Your task to perform on an android device: Go to eBay Image 0: 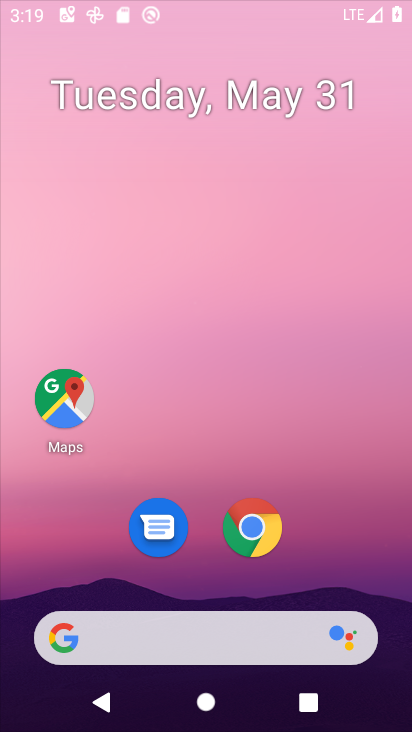
Step 0: drag from (365, 491) to (305, 15)
Your task to perform on an android device: Go to eBay Image 1: 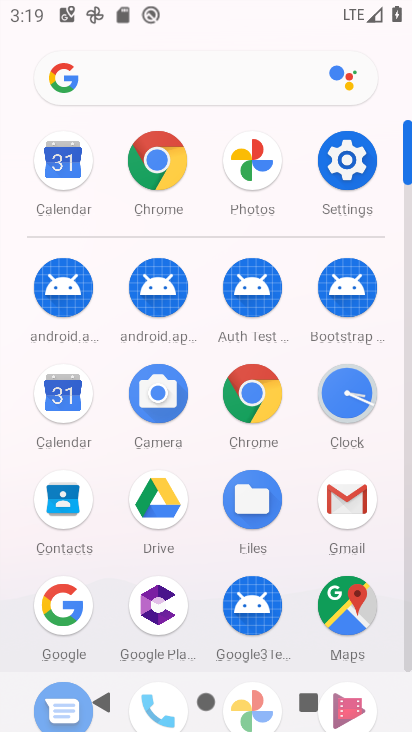
Step 1: click (339, 152)
Your task to perform on an android device: Go to eBay Image 2: 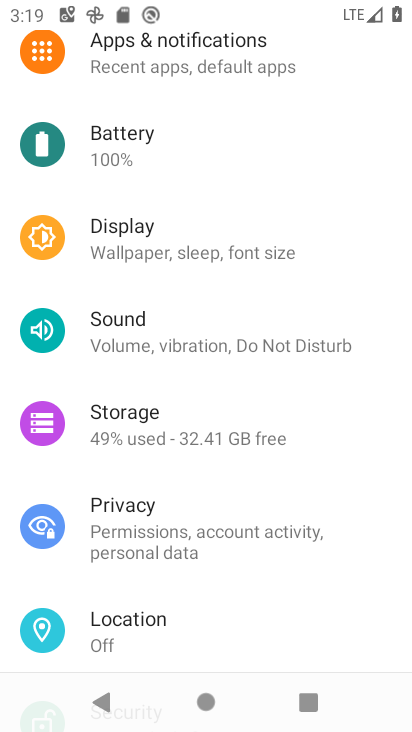
Step 2: press home button
Your task to perform on an android device: Go to eBay Image 3: 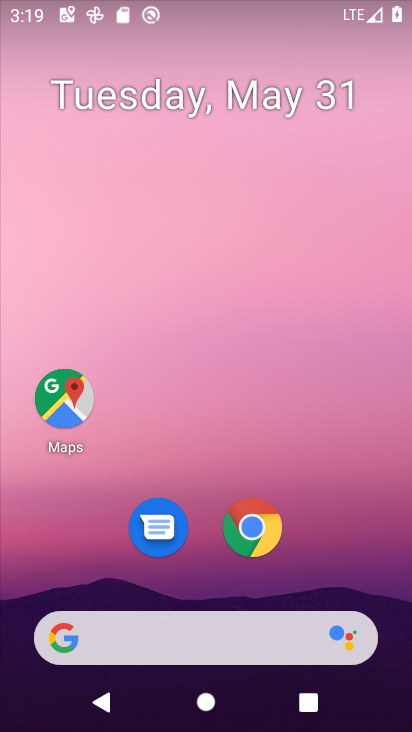
Step 3: drag from (370, 498) to (396, 88)
Your task to perform on an android device: Go to eBay Image 4: 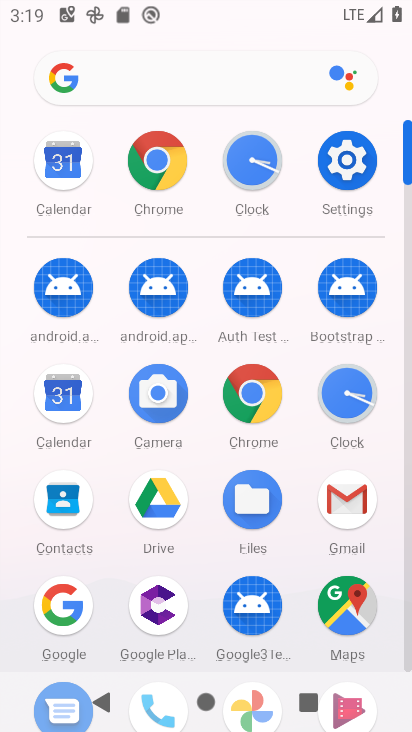
Step 4: click (146, 180)
Your task to perform on an android device: Go to eBay Image 5: 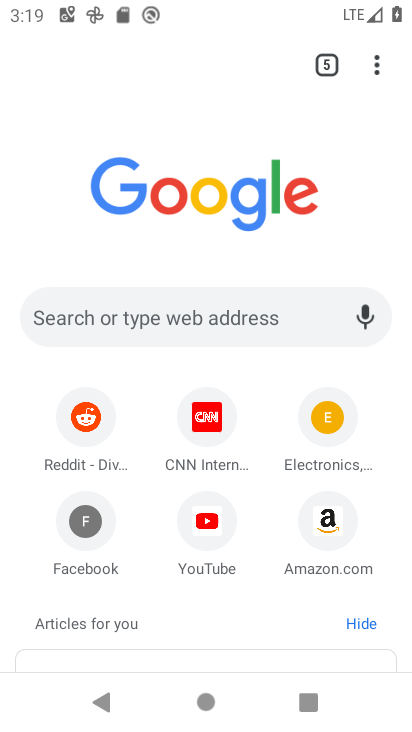
Step 5: click (261, 351)
Your task to perform on an android device: Go to eBay Image 6: 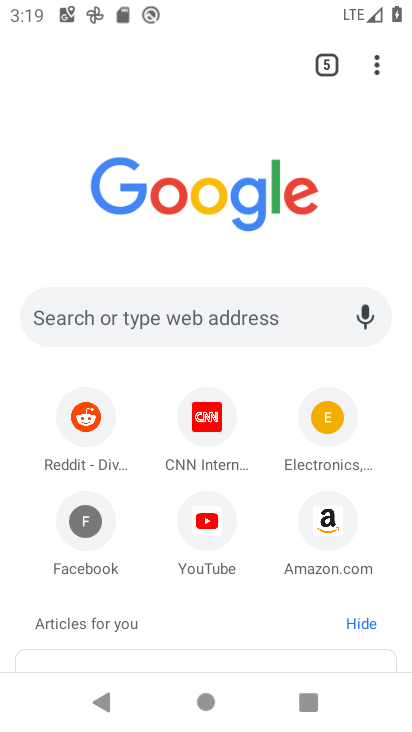
Step 6: click (243, 319)
Your task to perform on an android device: Go to eBay Image 7: 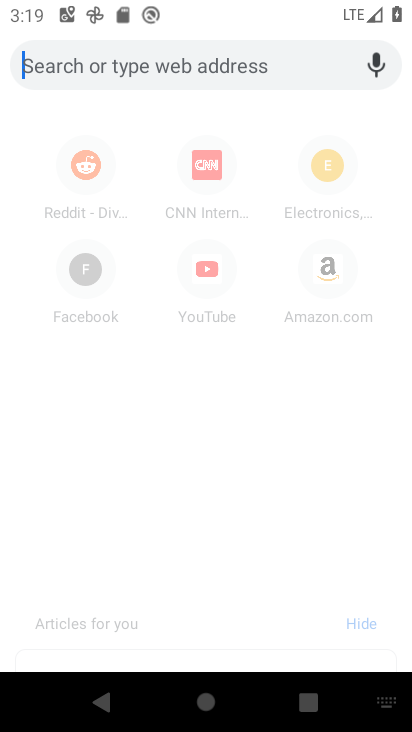
Step 7: type "ebay"
Your task to perform on an android device: Go to eBay Image 8: 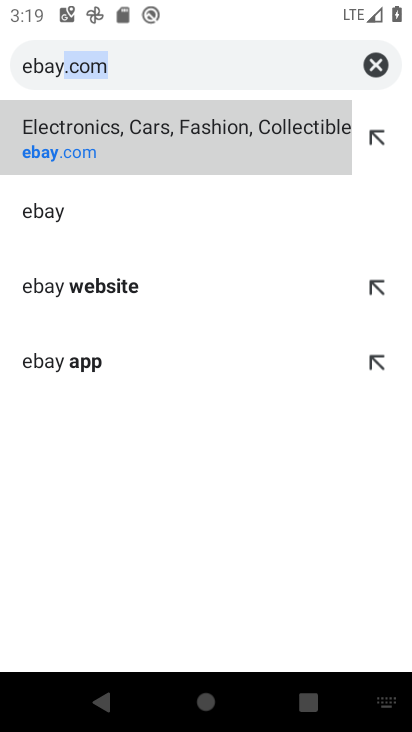
Step 8: click (108, 159)
Your task to perform on an android device: Go to eBay Image 9: 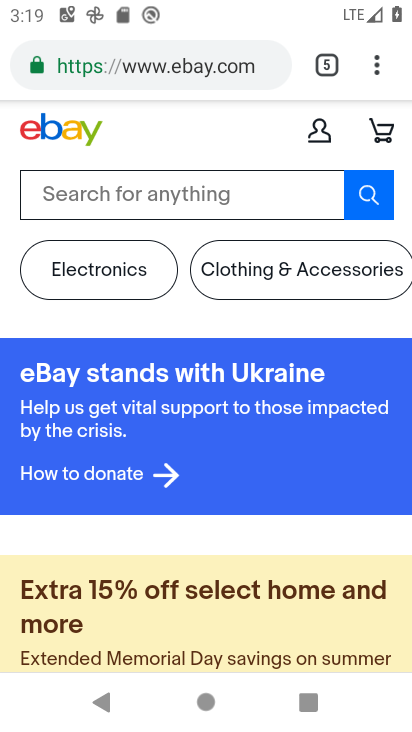
Step 9: task complete